Your task to perform on an android device: What is the price of a 12' ladder at Home Depot? Image 0: 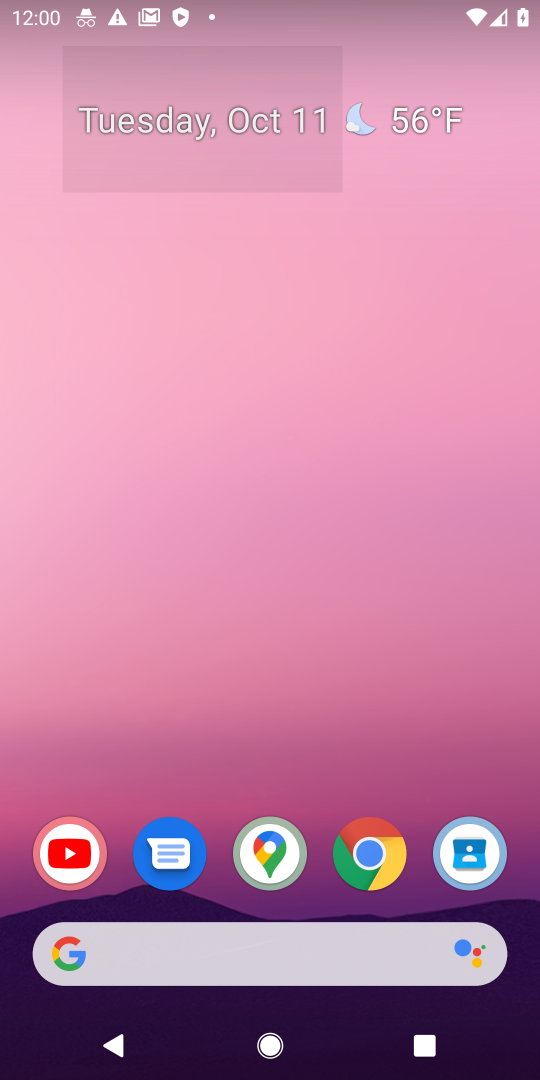
Step 0: press home button
Your task to perform on an android device: What is the price of a 12' ladder at Home Depot? Image 1: 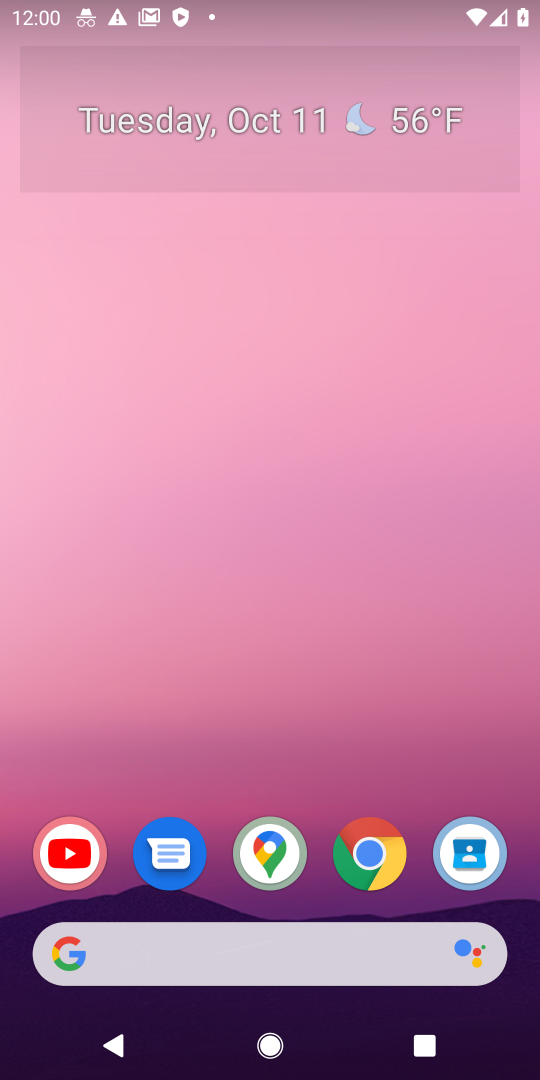
Step 1: click (257, 957)
Your task to perform on an android device: What is the price of a 12' ladder at Home Depot? Image 2: 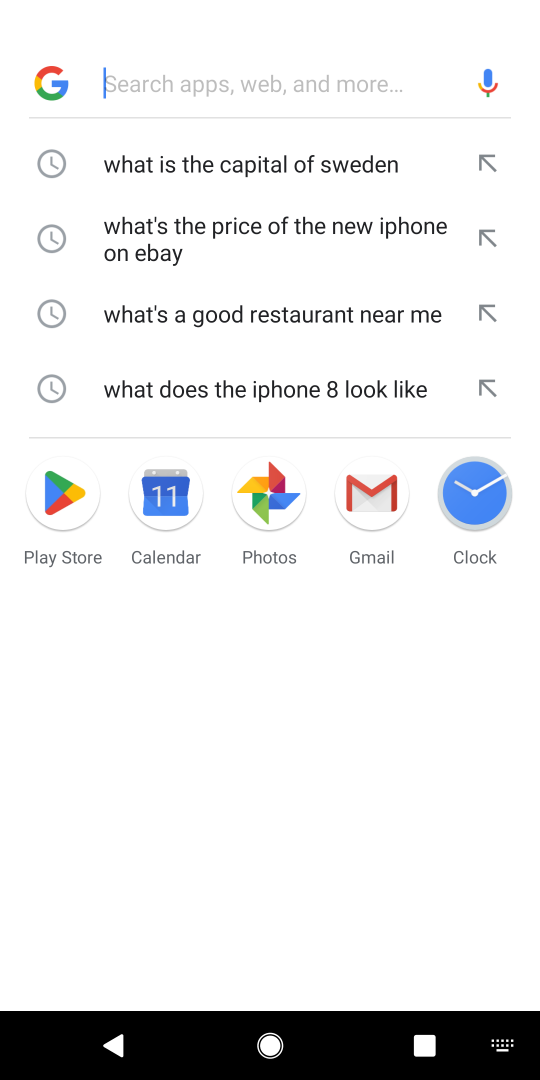
Step 2: type "What is the price of a 12' ladder at Home Depot"
Your task to perform on an android device: What is the price of a 12' ladder at Home Depot? Image 3: 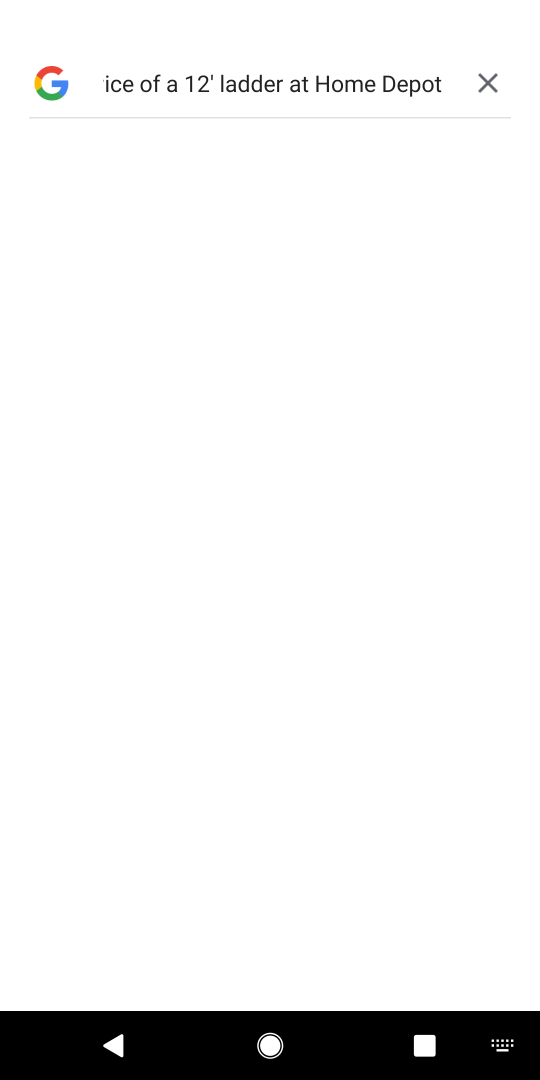
Step 3: press enter
Your task to perform on an android device: What is the price of a 12' ladder at Home Depot? Image 4: 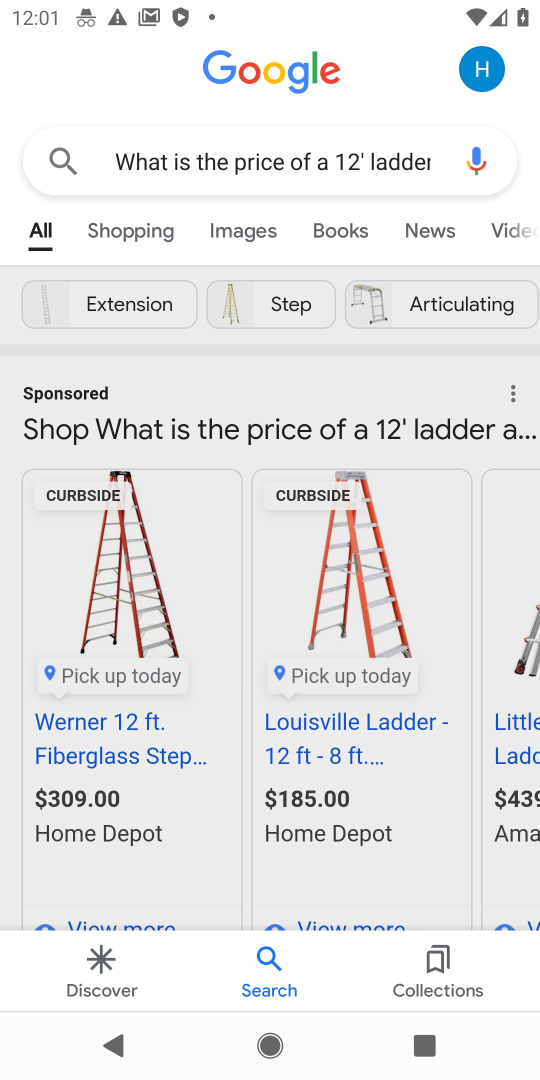
Step 4: task complete